Your task to perform on an android device: What's on my calendar tomorrow? Image 0: 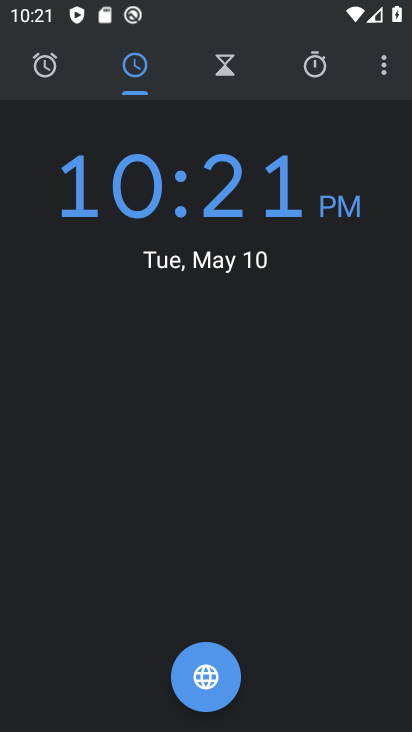
Step 0: press home button
Your task to perform on an android device: What's on my calendar tomorrow? Image 1: 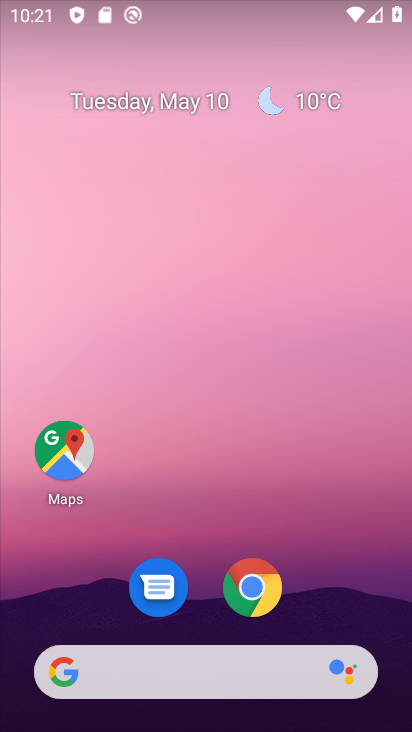
Step 1: drag from (219, 631) to (113, 32)
Your task to perform on an android device: What's on my calendar tomorrow? Image 2: 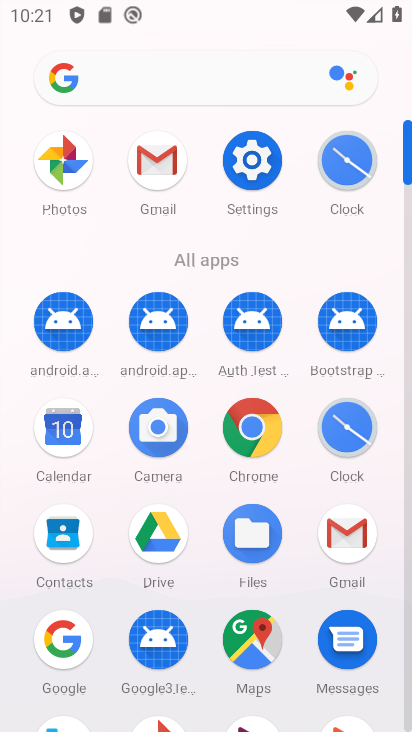
Step 2: click (64, 440)
Your task to perform on an android device: What's on my calendar tomorrow? Image 3: 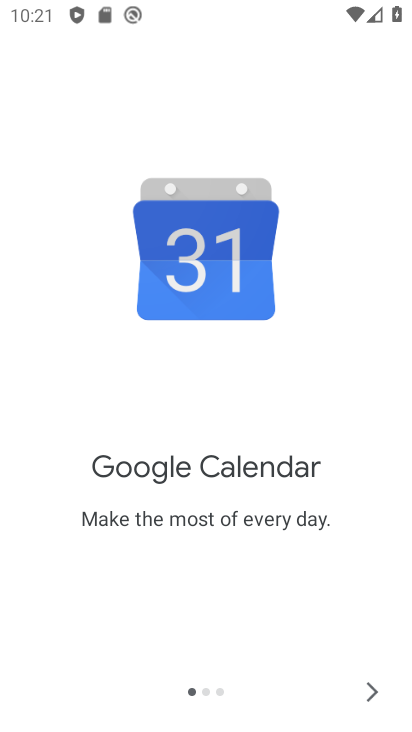
Step 3: click (346, 682)
Your task to perform on an android device: What's on my calendar tomorrow? Image 4: 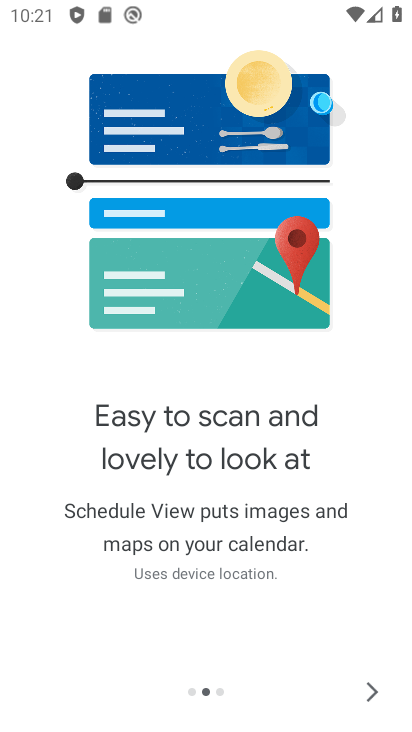
Step 4: click (378, 697)
Your task to perform on an android device: What's on my calendar tomorrow? Image 5: 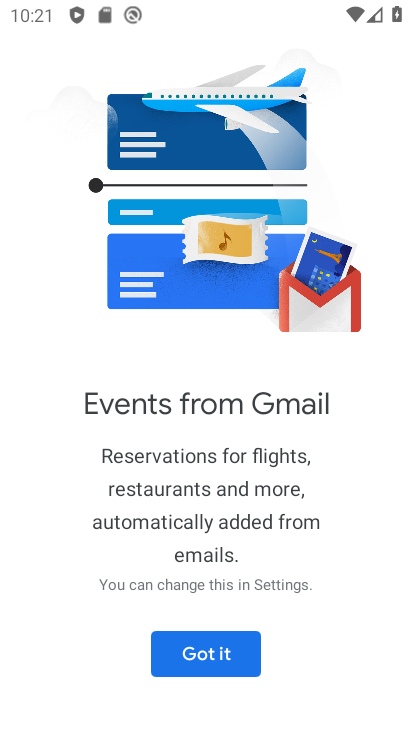
Step 5: click (209, 656)
Your task to perform on an android device: What's on my calendar tomorrow? Image 6: 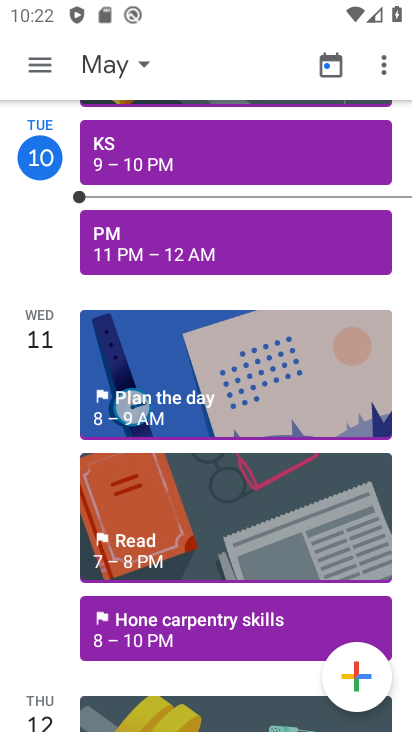
Step 6: click (39, 329)
Your task to perform on an android device: What's on my calendar tomorrow? Image 7: 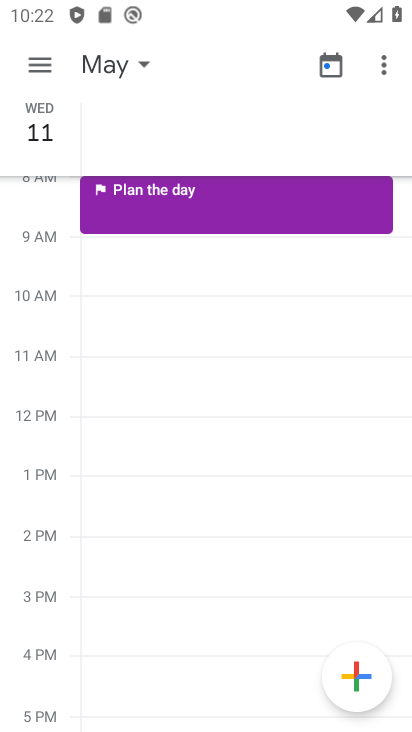
Step 7: task complete